Your task to perform on an android device: turn notification dots on Image 0: 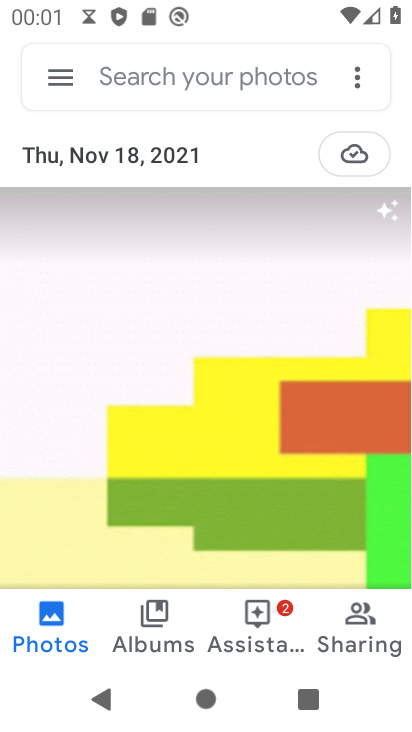
Step 0: press home button
Your task to perform on an android device: turn notification dots on Image 1: 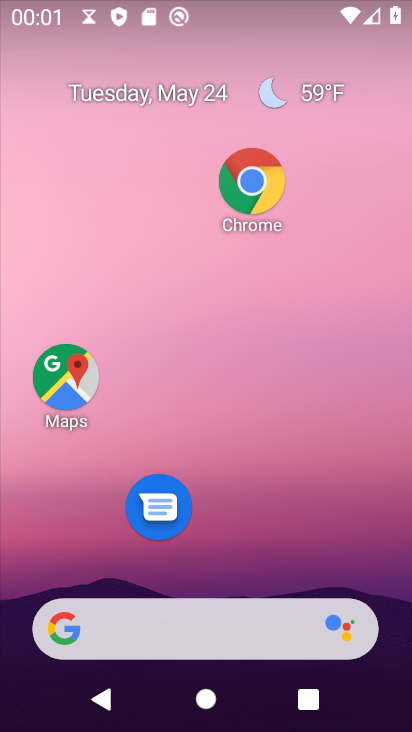
Step 1: drag from (293, 490) to (371, 119)
Your task to perform on an android device: turn notification dots on Image 2: 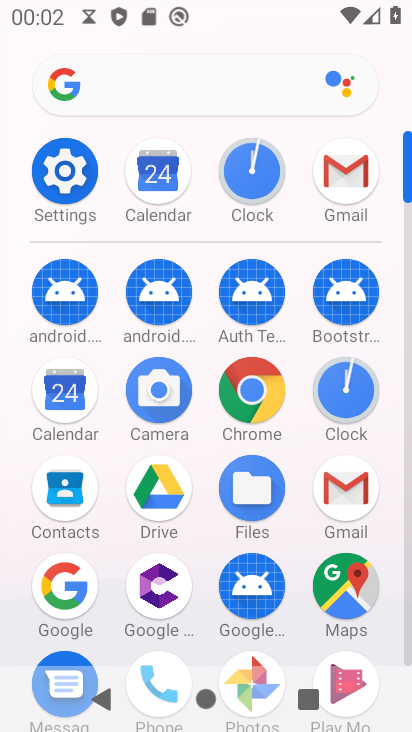
Step 2: click (50, 177)
Your task to perform on an android device: turn notification dots on Image 3: 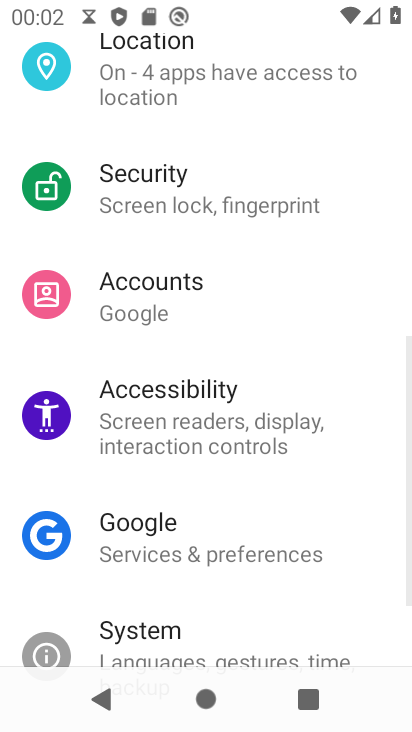
Step 3: drag from (199, 67) to (246, 477)
Your task to perform on an android device: turn notification dots on Image 4: 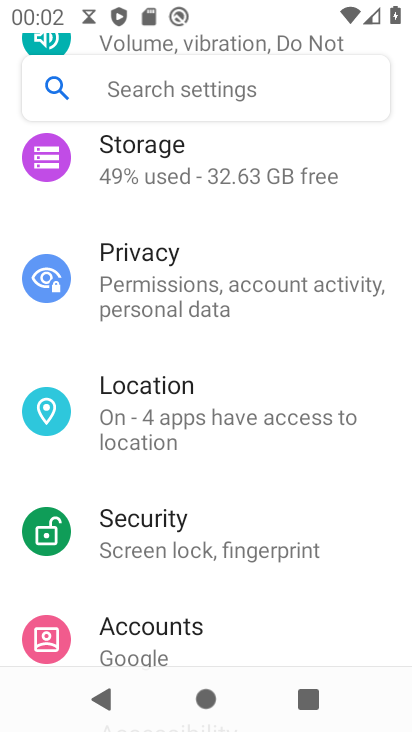
Step 4: click (155, 88)
Your task to perform on an android device: turn notification dots on Image 5: 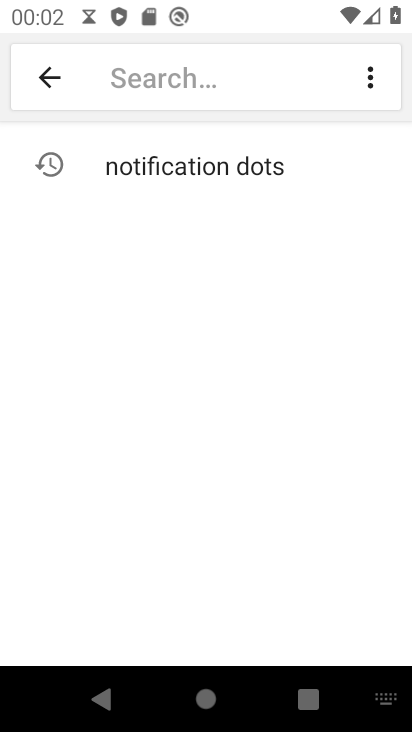
Step 5: type "notification dots"
Your task to perform on an android device: turn notification dots on Image 6: 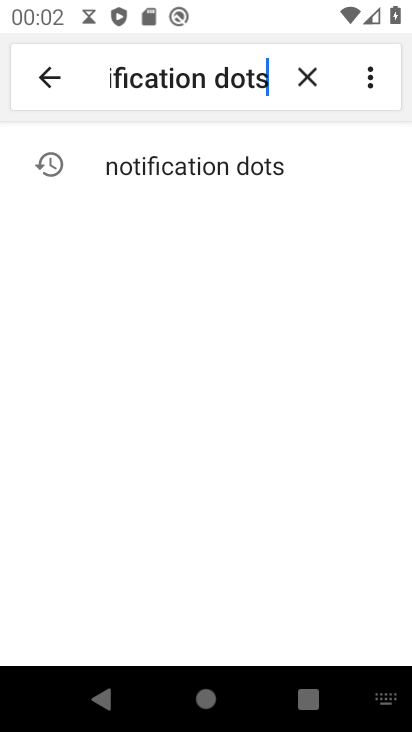
Step 6: click (307, 166)
Your task to perform on an android device: turn notification dots on Image 7: 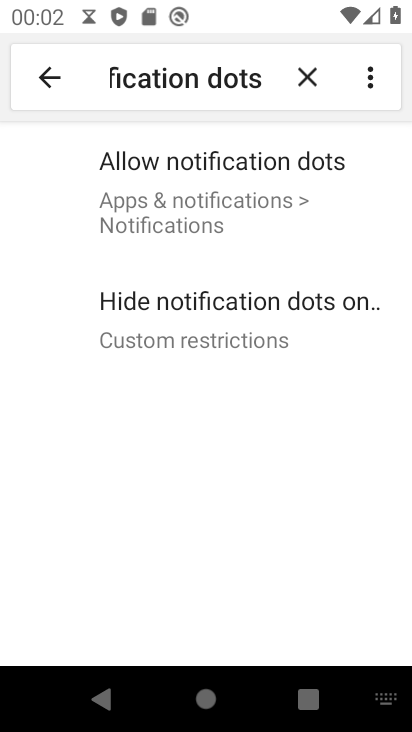
Step 7: click (306, 166)
Your task to perform on an android device: turn notification dots on Image 8: 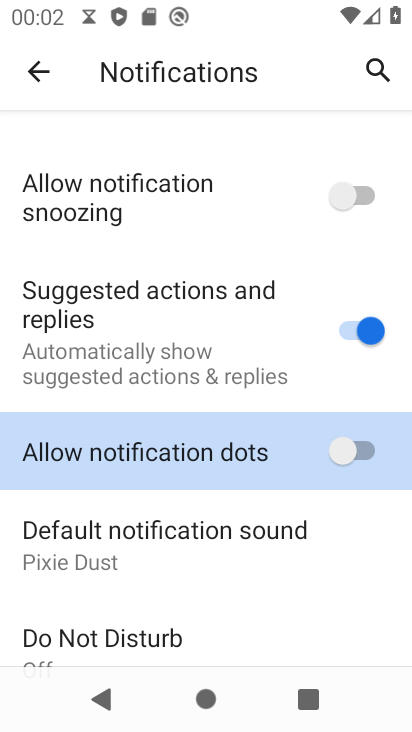
Step 8: click (345, 438)
Your task to perform on an android device: turn notification dots on Image 9: 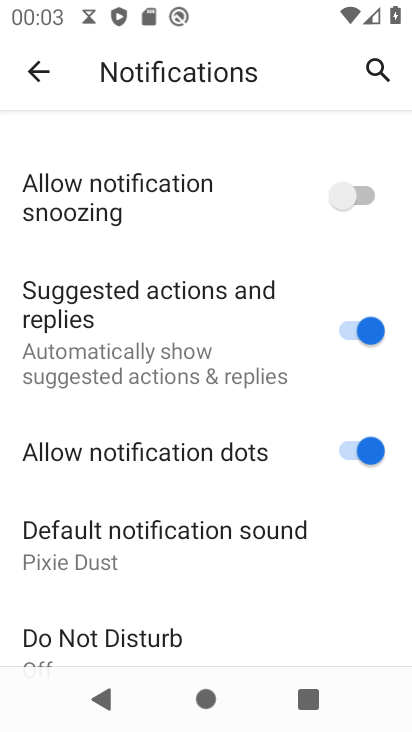
Step 9: task complete